Your task to perform on an android device: clear all cookies in the chrome app Image 0: 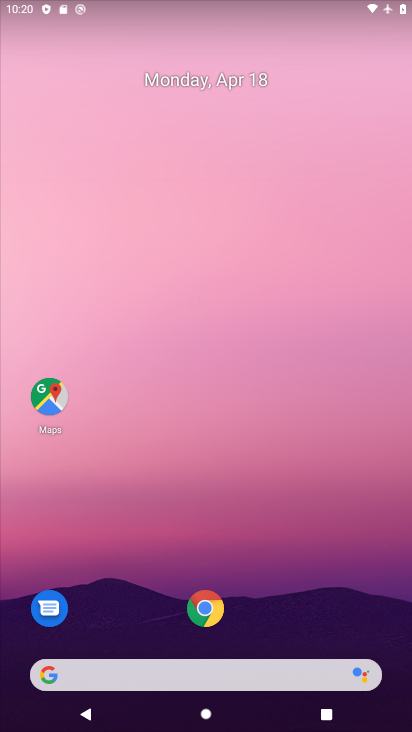
Step 0: drag from (250, 164) to (283, 245)
Your task to perform on an android device: clear all cookies in the chrome app Image 1: 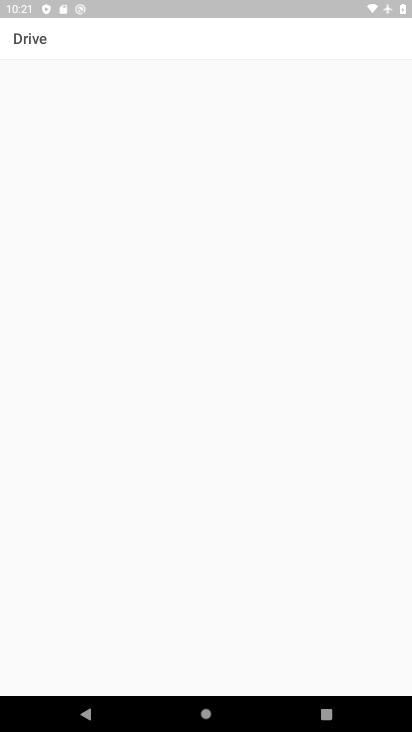
Step 1: press home button
Your task to perform on an android device: clear all cookies in the chrome app Image 2: 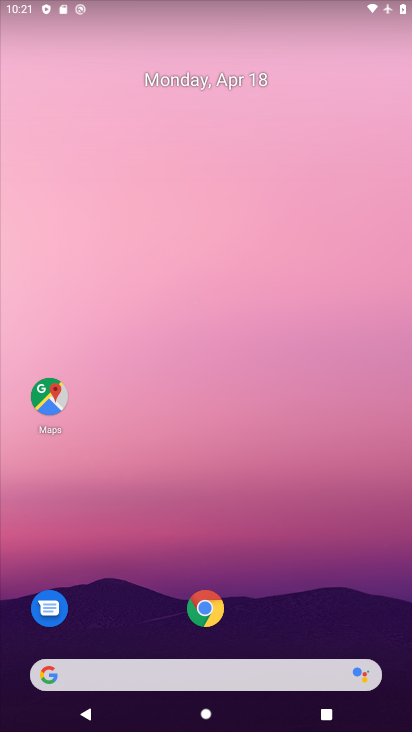
Step 2: click (211, 609)
Your task to perform on an android device: clear all cookies in the chrome app Image 3: 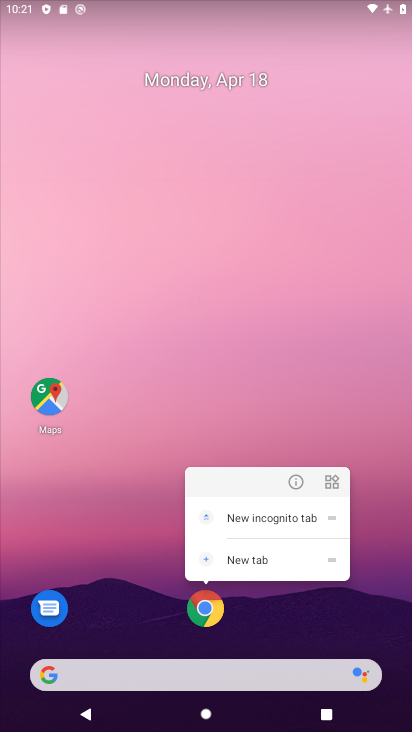
Step 3: click (215, 618)
Your task to perform on an android device: clear all cookies in the chrome app Image 4: 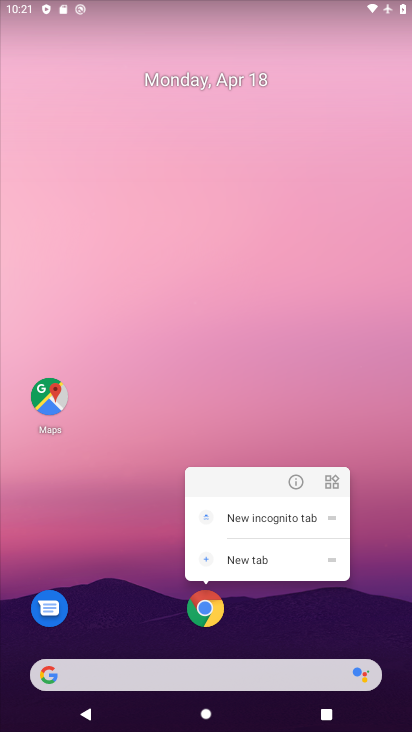
Step 4: click (200, 611)
Your task to perform on an android device: clear all cookies in the chrome app Image 5: 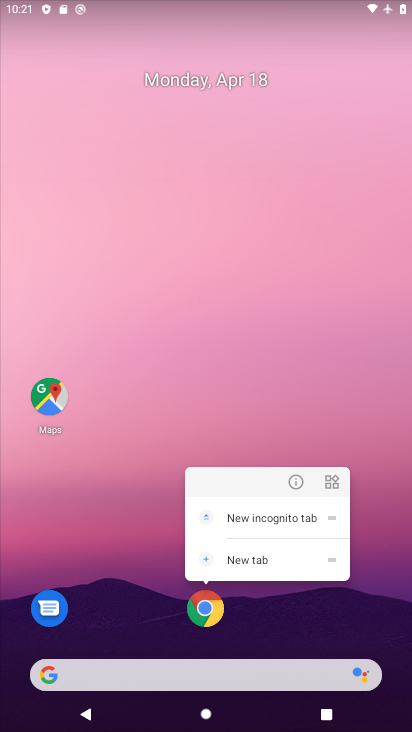
Step 5: click (205, 614)
Your task to perform on an android device: clear all cookies in the chrome app Image 6: 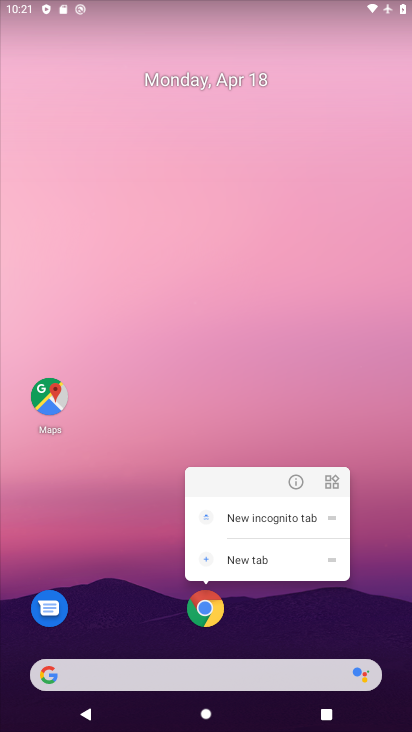
Step 6: click (205, 614)
Your task to perform on an android device: clear all cookies in the chrome app Image 7: 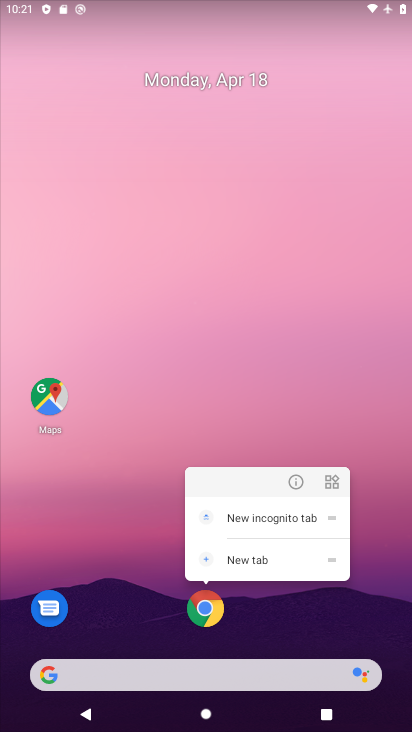
Step 7: click (205, 614)
Your task to perform on an android device: clear all cookies in the chrome app Image 8: 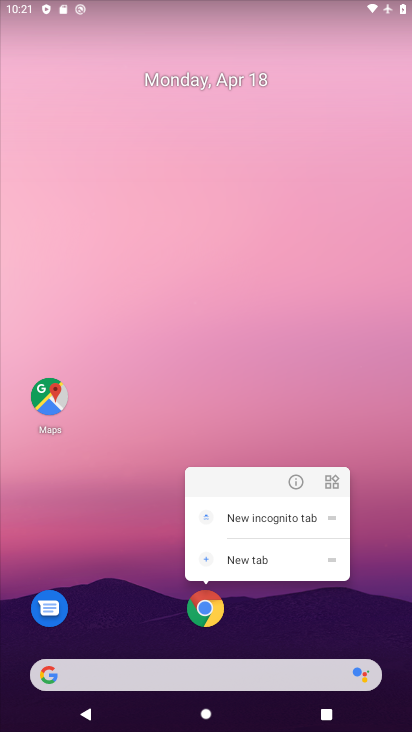
Step 8: click (205, 614)
Your task to perform on an android device: clear all cookies in the chrome app Image 9: 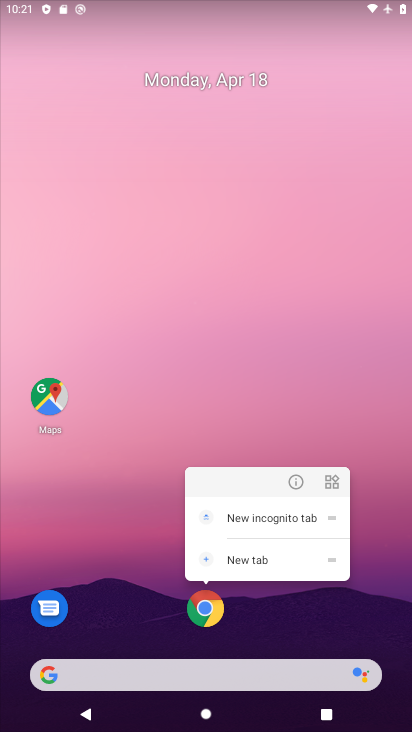
Step 9: click (205, 614)
Your task to perform on an android device: clear all cookies in the chrome app Image 10: 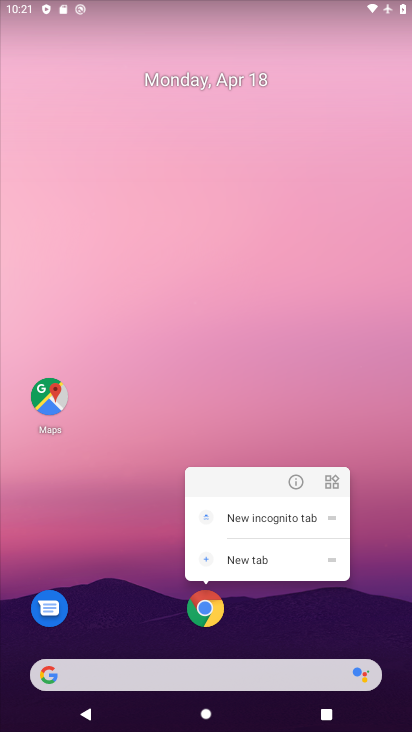
Step 10: click (205, 614)
Your task to perform on an android device: clear all cookies in the chrome app Image 11: 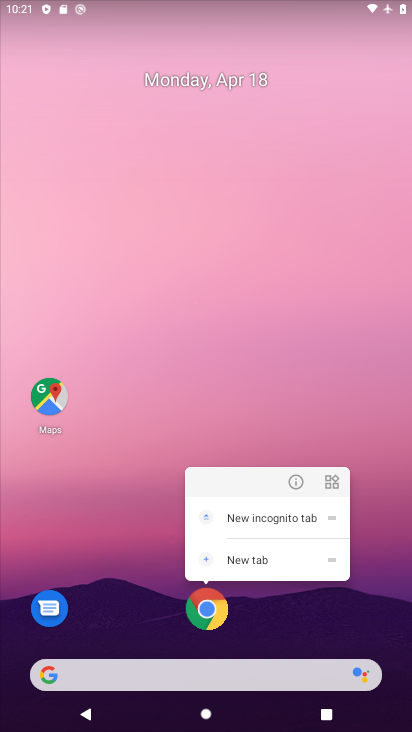
Step 11: click (205, 614)
Your task to perform on an android device: clear all cookies in the chrome app Image 12: 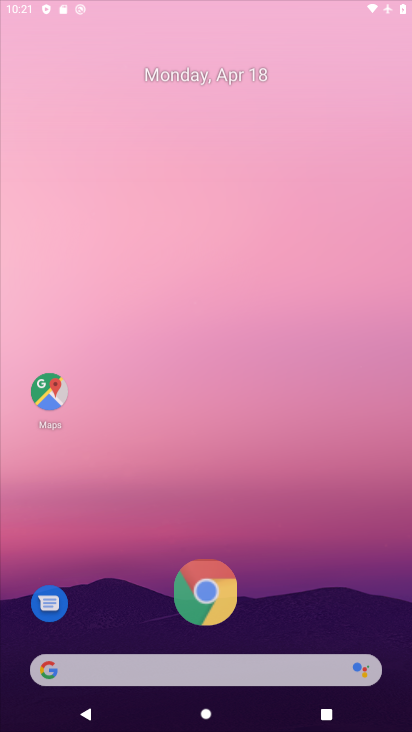
Step 12: click (205, 614)
Your task to perform on an android device: clear all cookies in the chrome app Image 13: 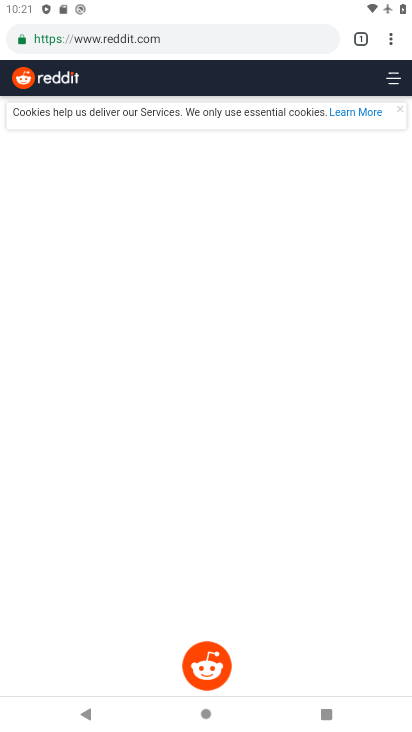
Step 13: click (394, 41)
Your task to perform on an android device: clear all cookies in the chrome app Image 14: 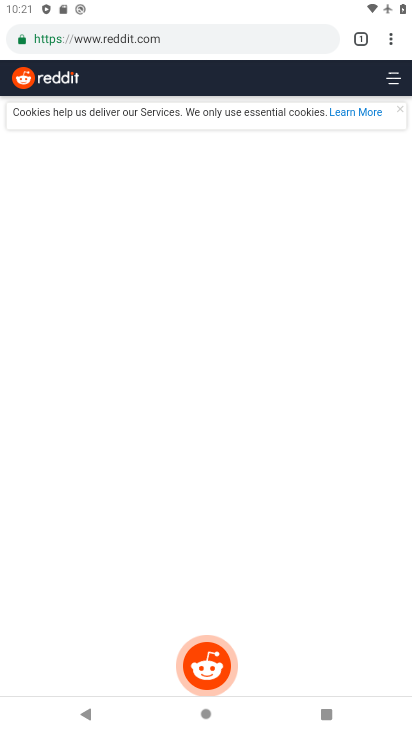
Step 14: drag from (393, 39) to (245, 272)
Your task to perform on an android device: clear all cookies in the chrome app Image 15: 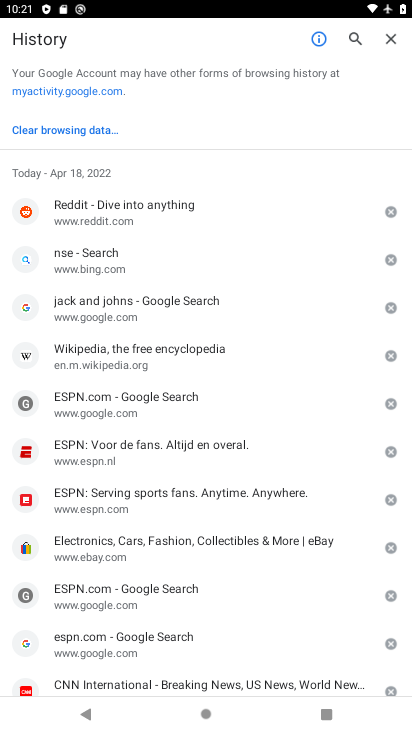
Step 15: click (70, 132)
Your task to perform on an android device: clear all cookies in the chrome app Image 16: 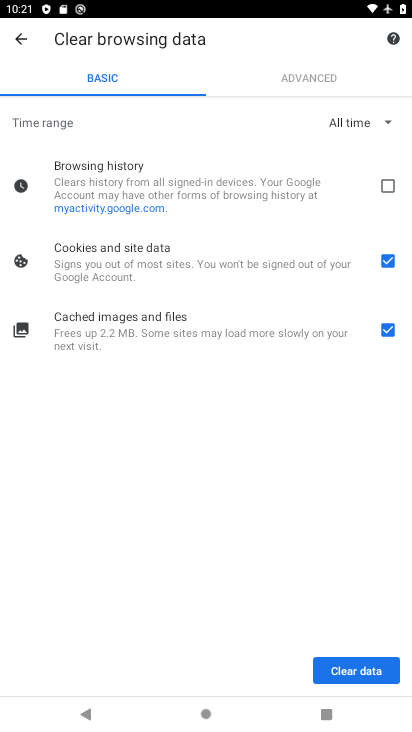
Step 16: click (330, 667)
Your task to perform on an android device: clear all cookies in the chrome app Image 17: 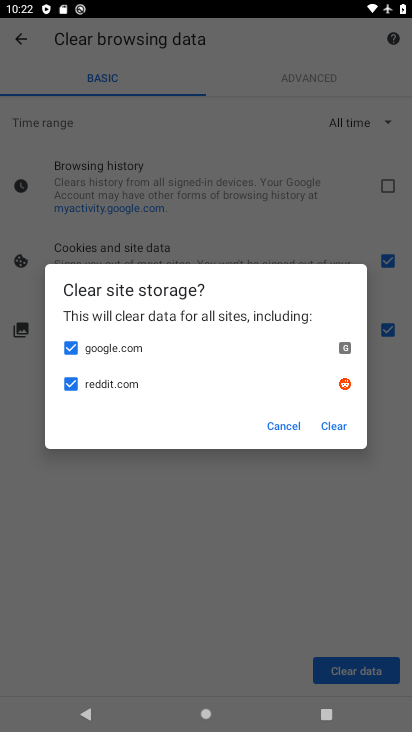
Step 17: click (335, 425)
Your task to perform on an android device: clear all cookies in the chrome app Image 18: 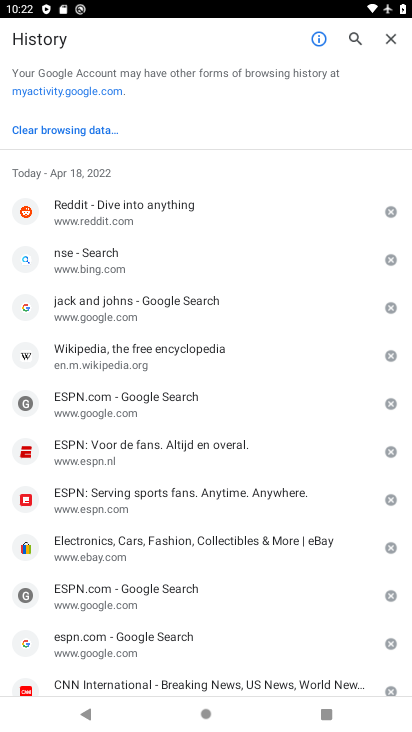
Step 18: task complete